Your task to perform on an android device: turn off notifications in google photos Image 0: 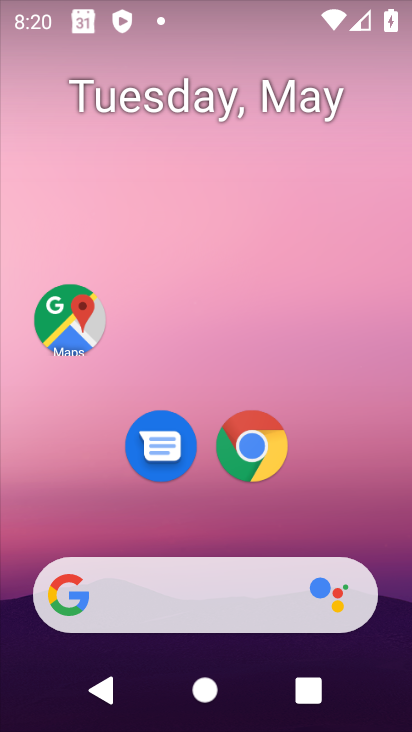
Step 0: drag from (362, 555) to (377, 13)
Your task to perform on an android device: turn off notifications in google photos Image 1: 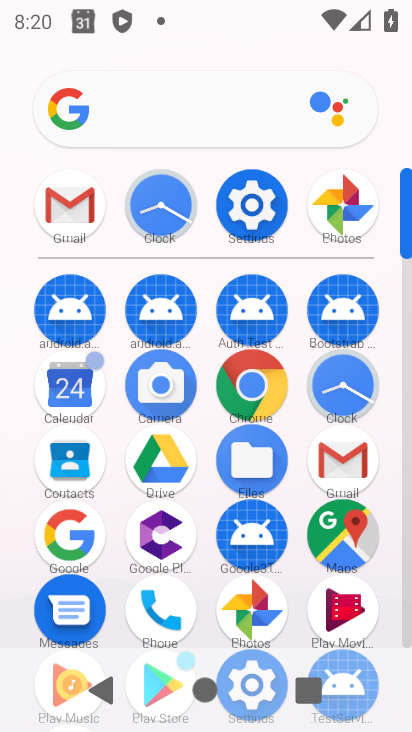
Step 1: click (340, 208)
Your task to perform on an android device: turn off notifications in google photos Image 2: 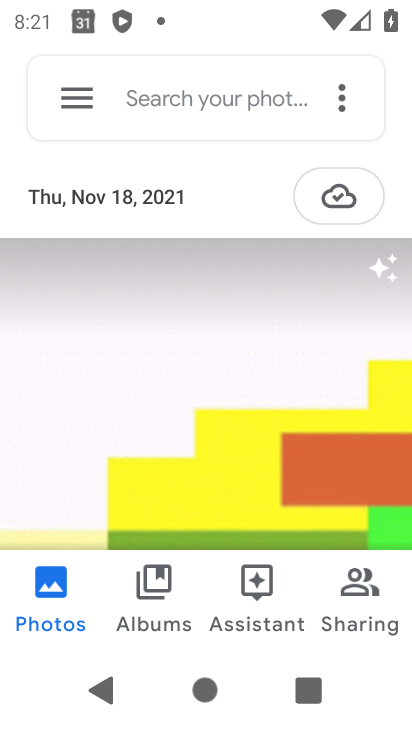
Step 2: click (63, 106)
Your task to perform on an android device: turn off notifications in google photos Image 3: 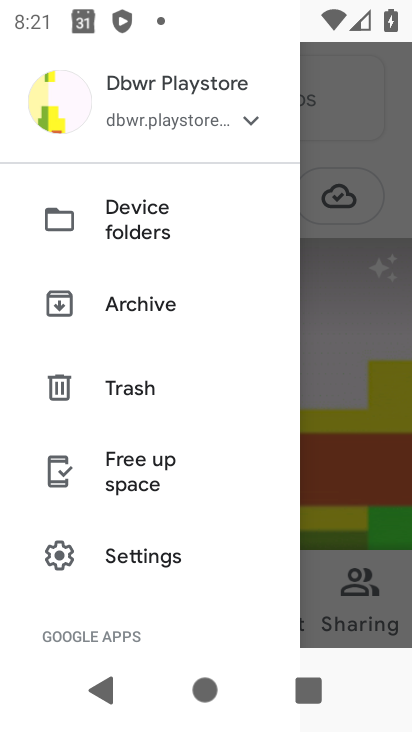
Step 3: click (161, 555)
Your task to perform on an android device: turn off notifications in google photos Image 4: 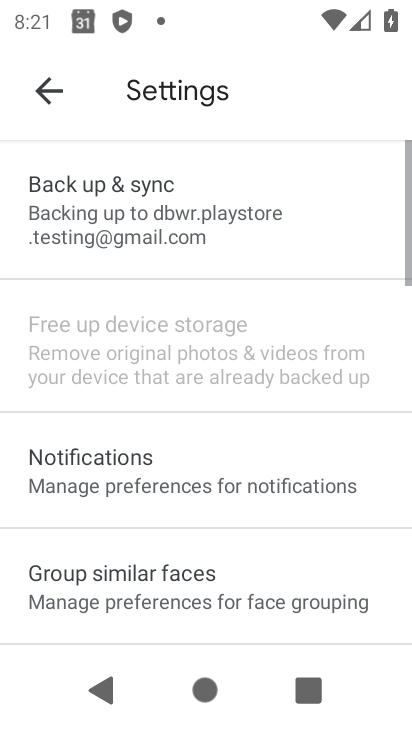
Step 4: click (155, 490)
Your task to perform on an android device: turn off notifications in google photos Image 5: 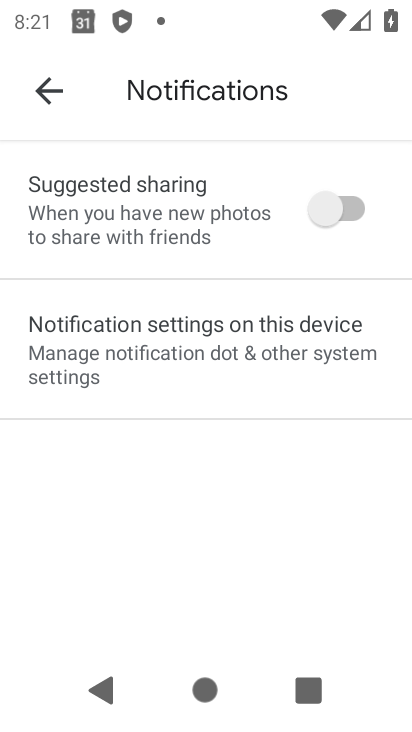
Step 5: click (160, 327)
Your task to perform on an android device: turn off notifications in google photos Image 6: 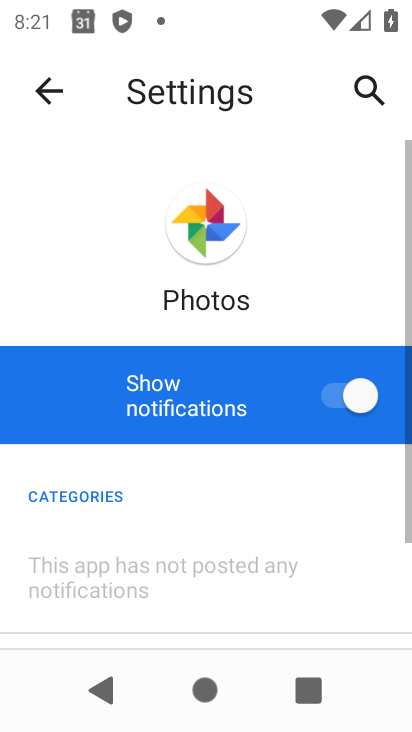
Step 6: click (342, 405)
Your task to perform on an android device: turn off notifications in google photos Image 7: 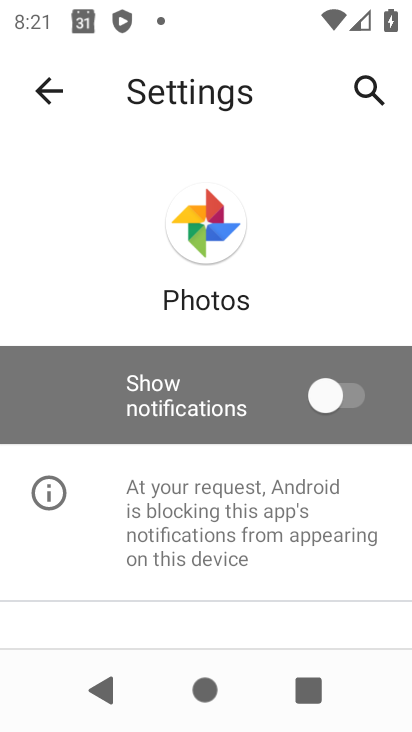
Step 7: task complete